Your task to perform on an android device: Open Google Maps and go to "Timeline" Image 0: 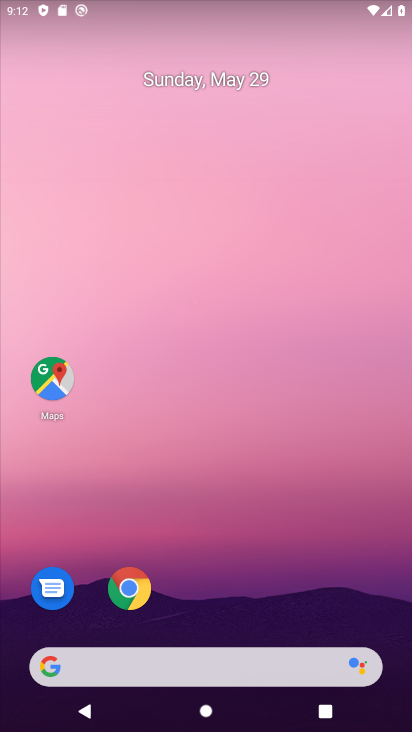
Step 0: drag from (243, 595) to (229, 52)
Your task to perform on an android device: Open Google Maps and go to "Timeline" Image 1: 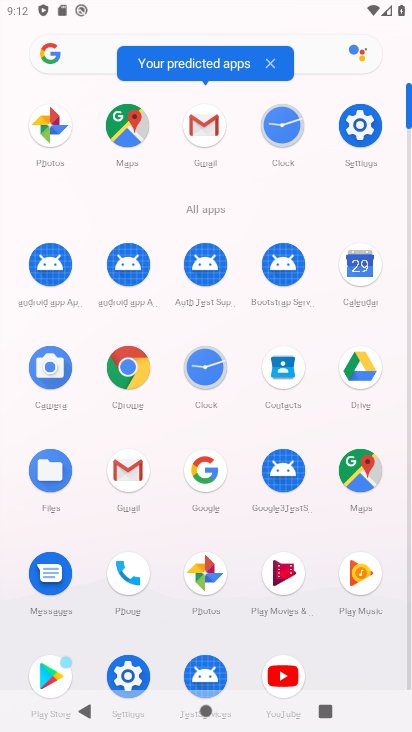
Step 1: click (364, 481)
Your task to perform on an android device: Open Google Maps and go to "Timeline" Image 2: 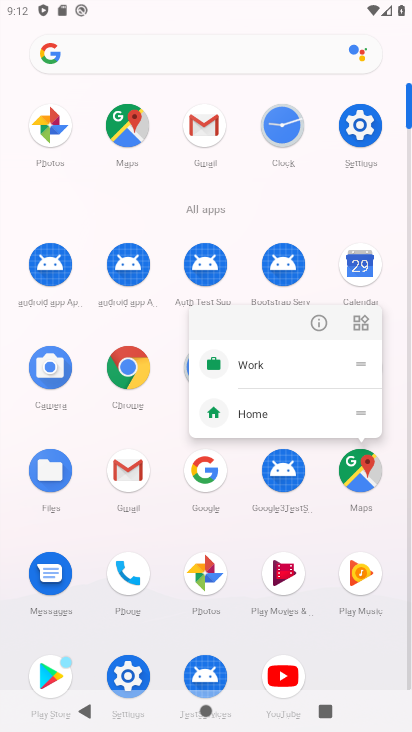
Step 2: click (362, 479)
Your task to perform on an android device: Open Google Maps and go to "Timeline" Image 3: 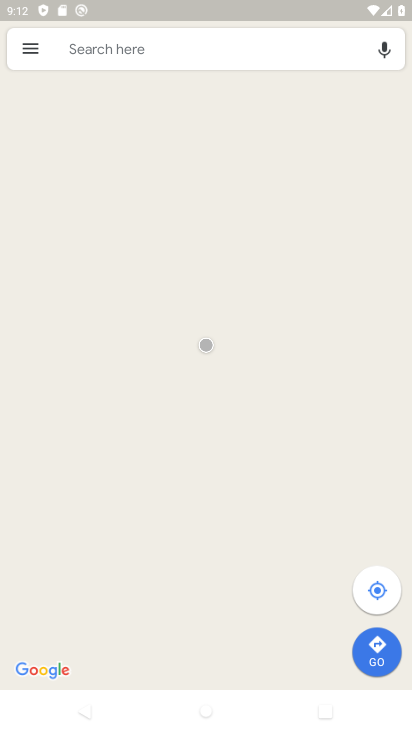
Step 3: click (32, 44)
Your task to perform on an android device: Open Google Maps and go to "Timeline" Image 4: 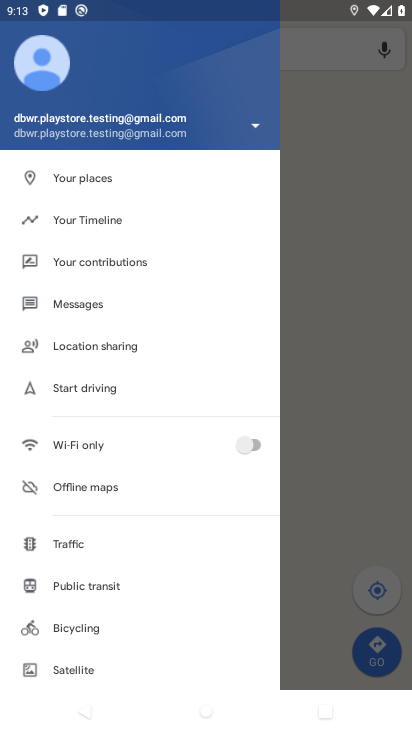
Step 4: click (102, 215)
Your task to perform on an android device: Open Google Maps and go to "Timeline" Image 5: 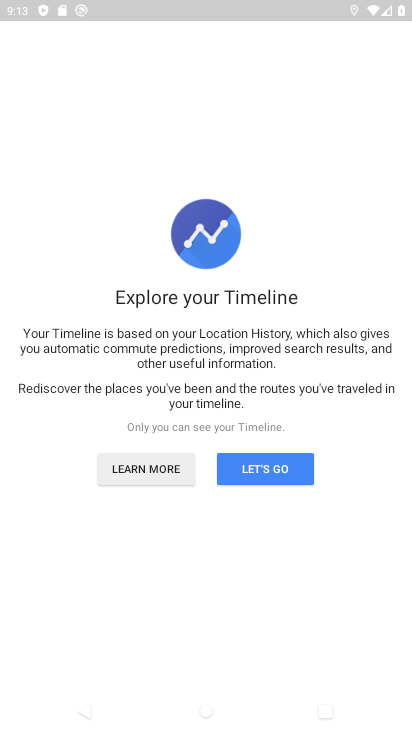
Step 5: click (281, 461)
Your task to perform on an android device: Open Google Maps and go to "Timeline" Image 6: 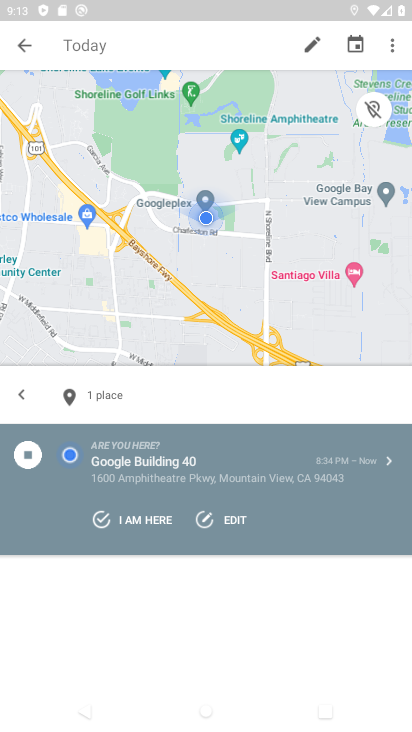
Step 6: task complete